Your task to perform on an android device: check storage Image 0: 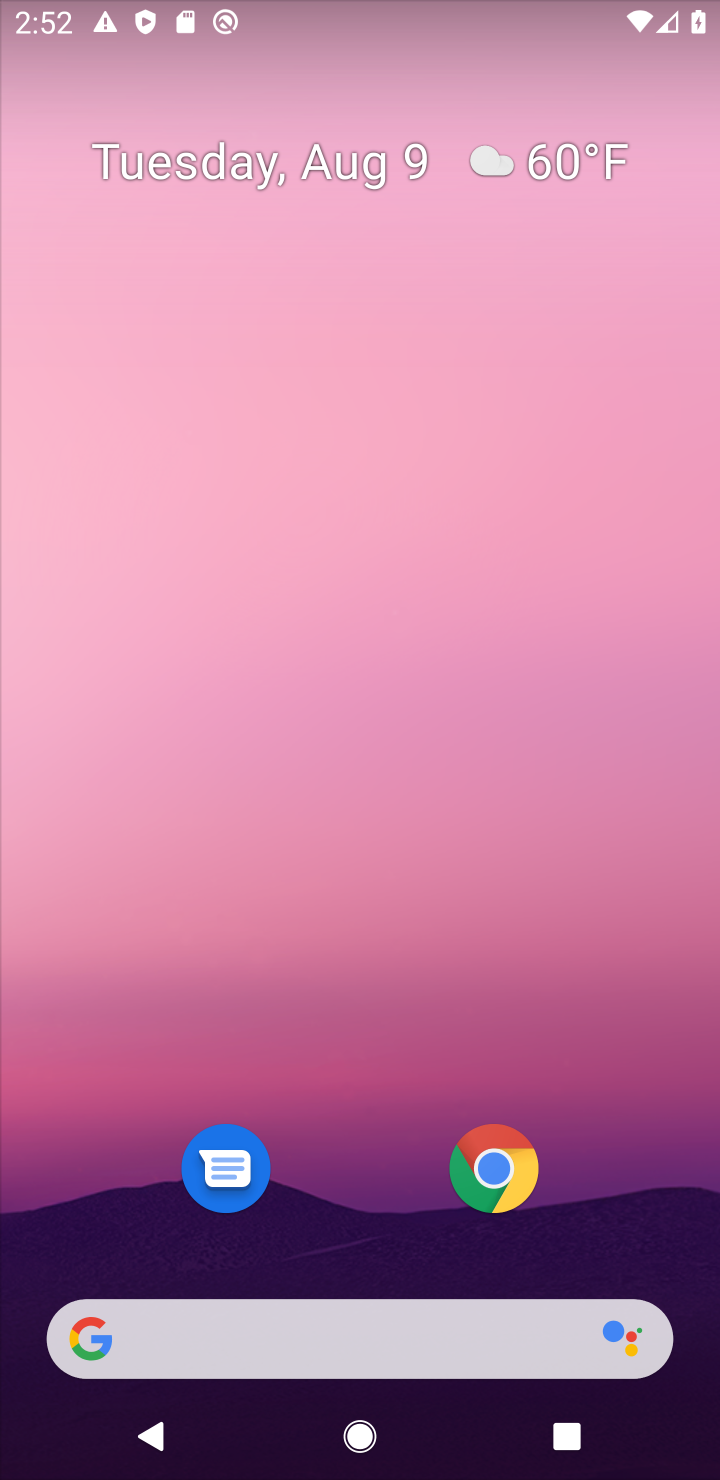
Step 0: drag from (383, 1155) to (111, 291)
Your task to perform on an android device: check storage Image 1: 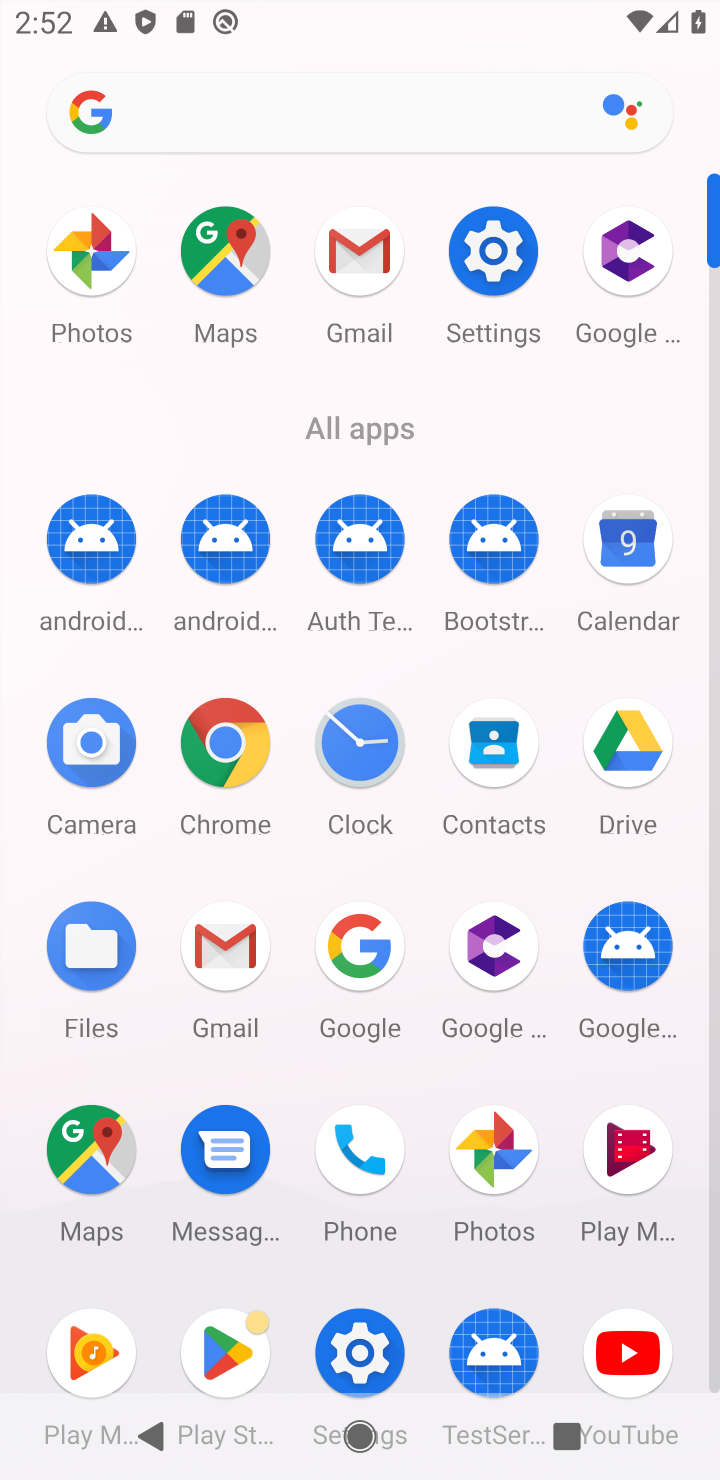
Step 1: click (350, 1358)
Your task to perform on an android device: check storage Image 2: 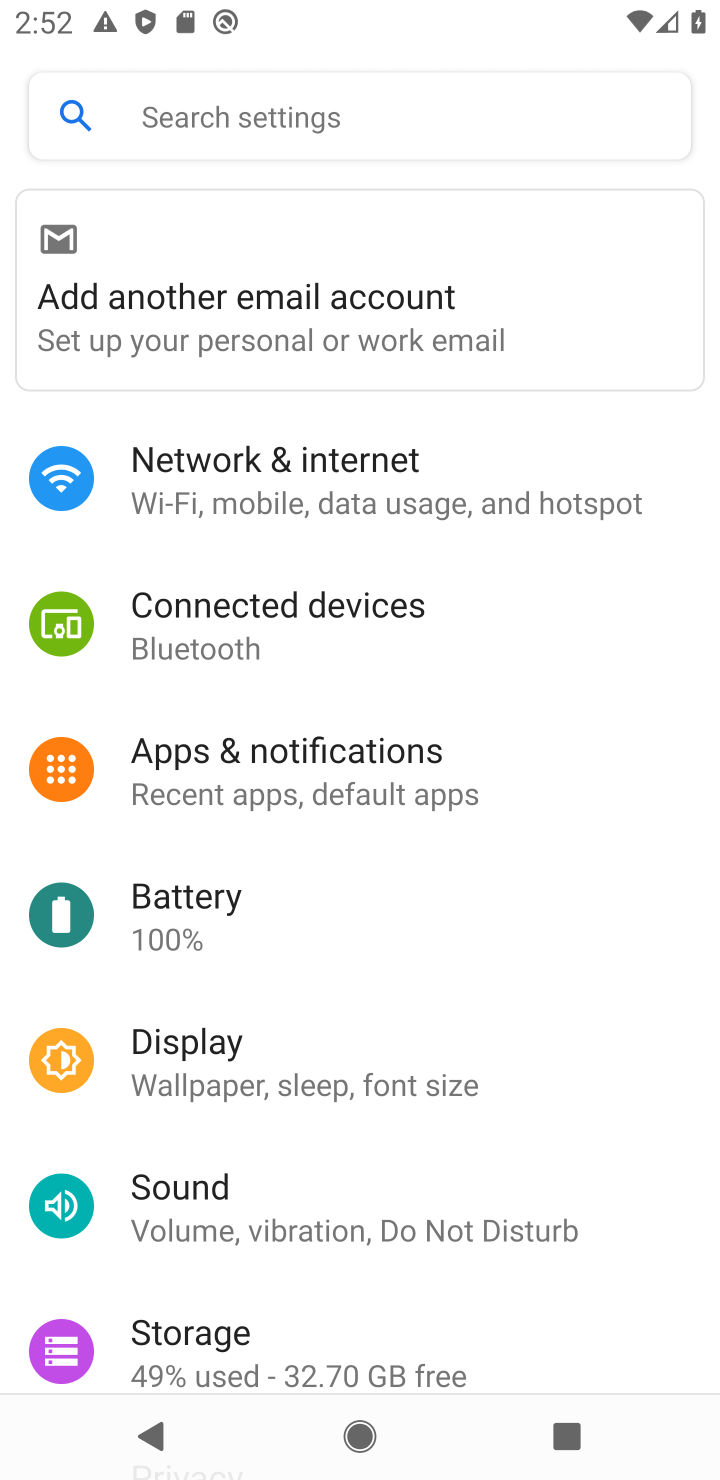
Step 2: click (264, 1363)
Your task to perform on an android device: check storage Image 3: 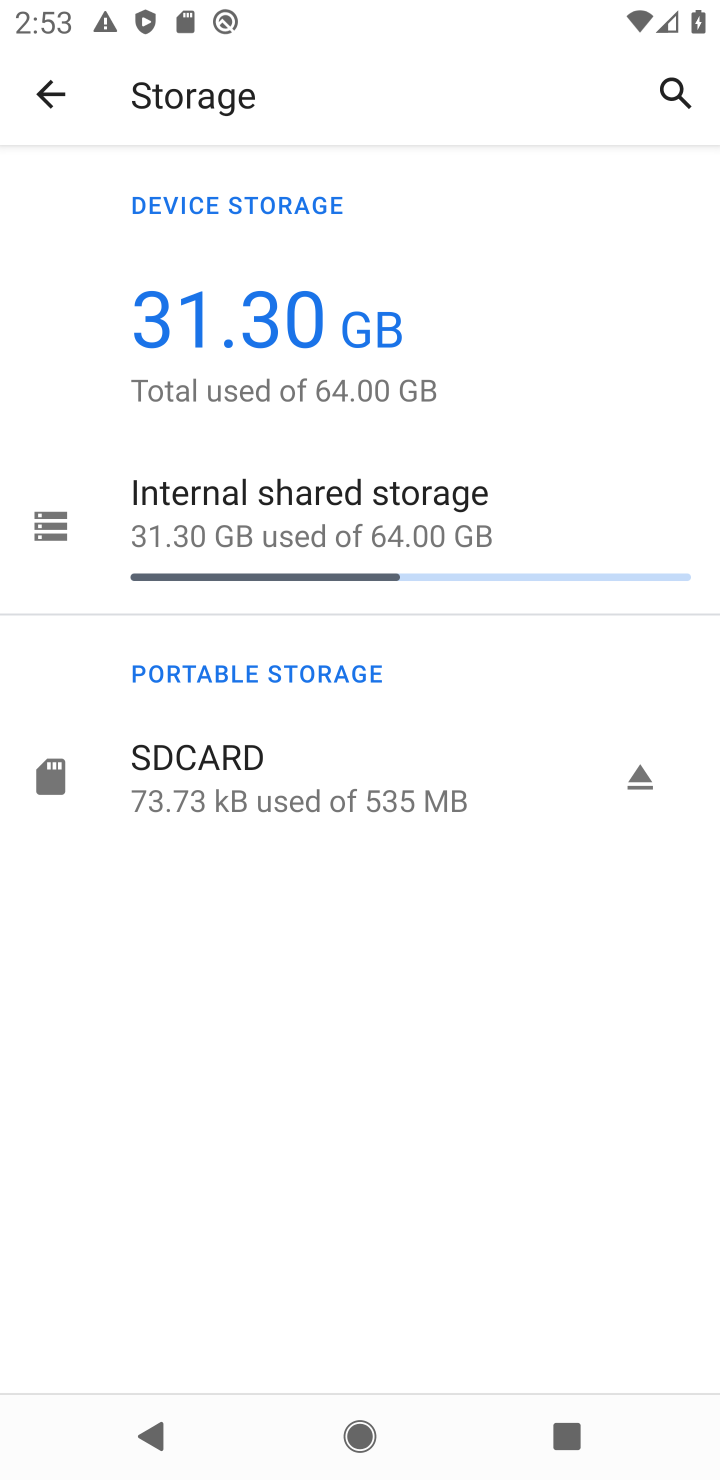
Step 3: task complete